Your task to perform on an android device: Open Yahoo.com Image 0: 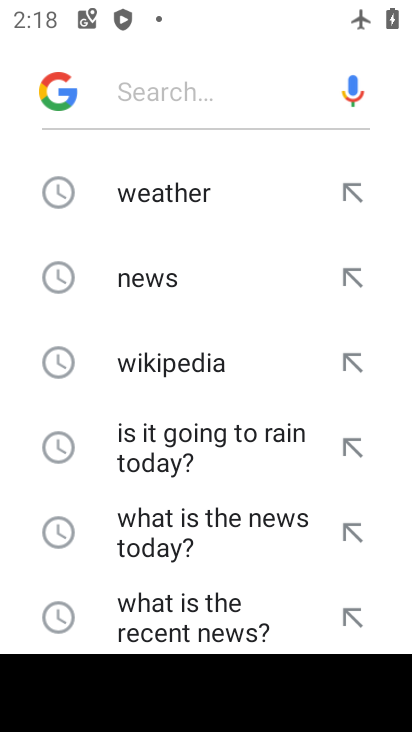
Step 0: type "yahoo.com"
Your task to perform on an android device: Open Yahoo.com Image 1: 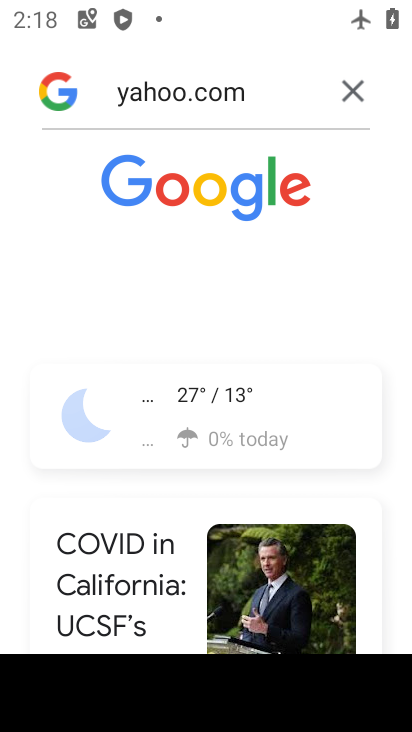
Step 1: press enter
Your task to perform on an android device: Open Yahoo.com Image 2: 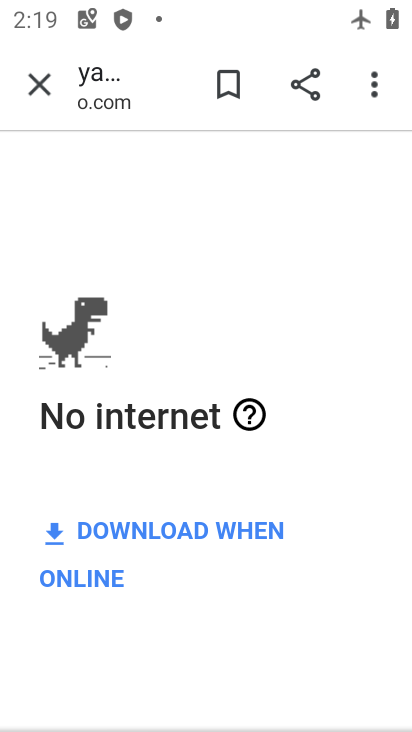
Step 2: task complete